Your task to perform on an android device: toggle wifi Image 0: 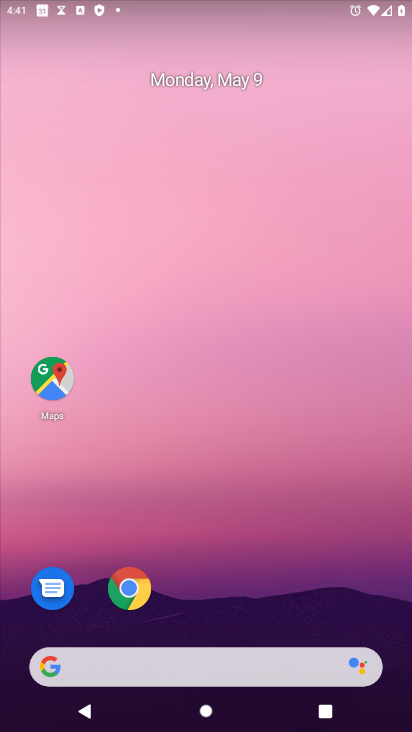
Step 0: drag from (297, 563) to (230, 109)
Your task to perform on an android device: toggle wifi Image 1: 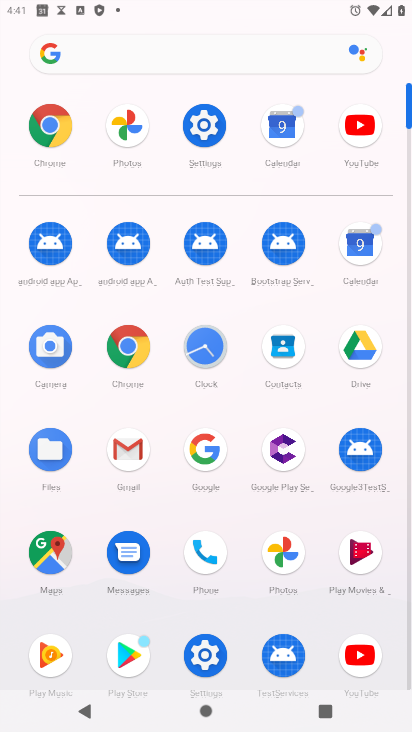
Step 1: click (200, 94)
Your task to perform on an android device: toggle wifi Image 2: 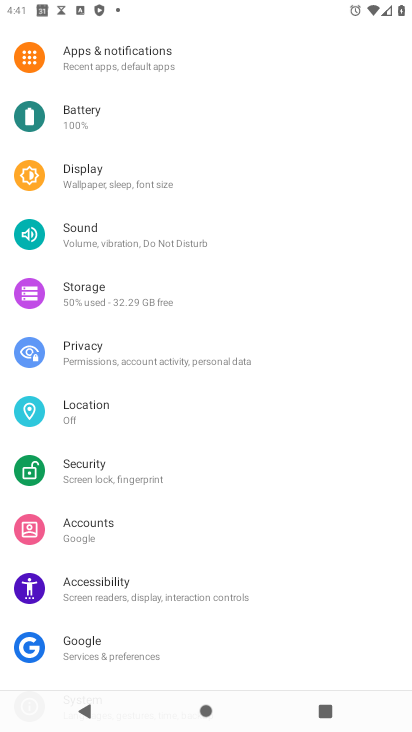
Step 2: drag from (213, 132) to (212, 704)
Your task to perform on an android device: toggle wifi Image 3: 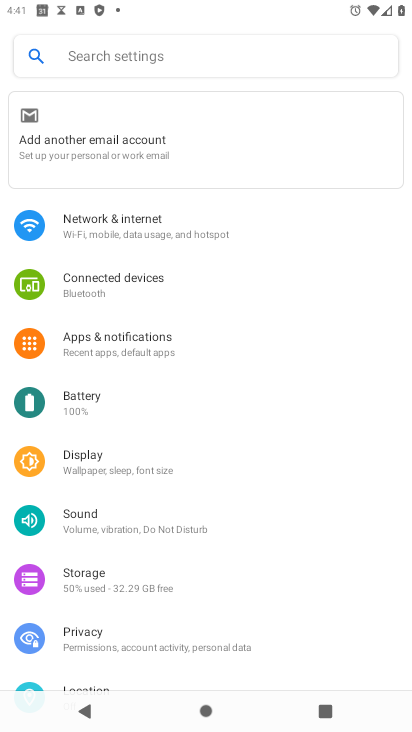
Step 3: click (177, 235)
Your task to perform on an android device: toggle wifi Image 4: 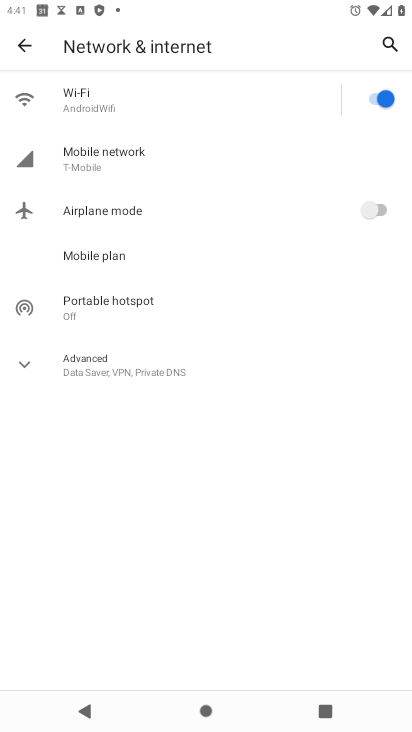
Step 4: click (139, 96)
Your task to perform on an android device: toggle wifi Image 5: 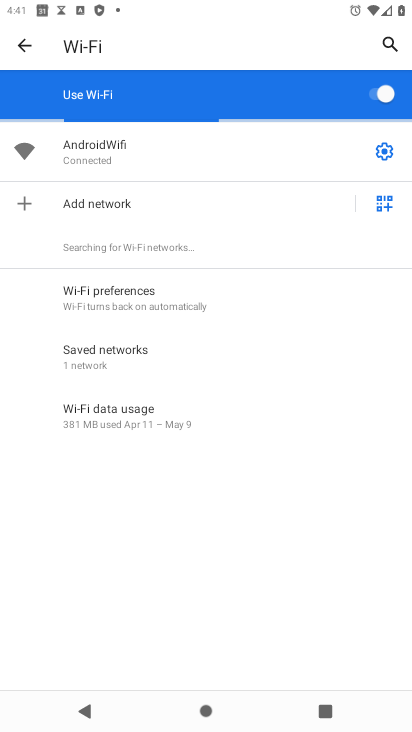
Step 5: click (385, 97)
Your task to perform on an android device: toggle wifi Image 6: 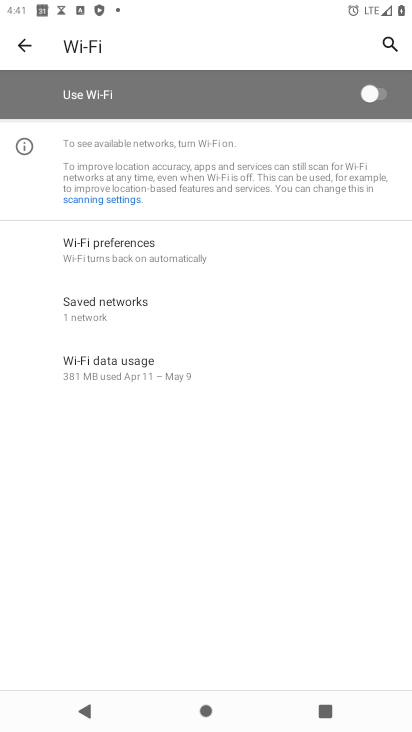
Step 6: task complete